Your task to perform on an android device: Open Chrome and go to settings Image 0: 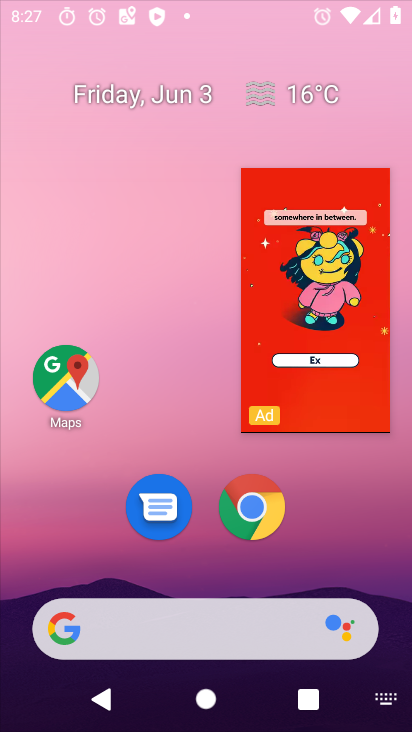
Step 0: press home button
Your task to perform on an android device: Open Chrome and go to settings Image 1: 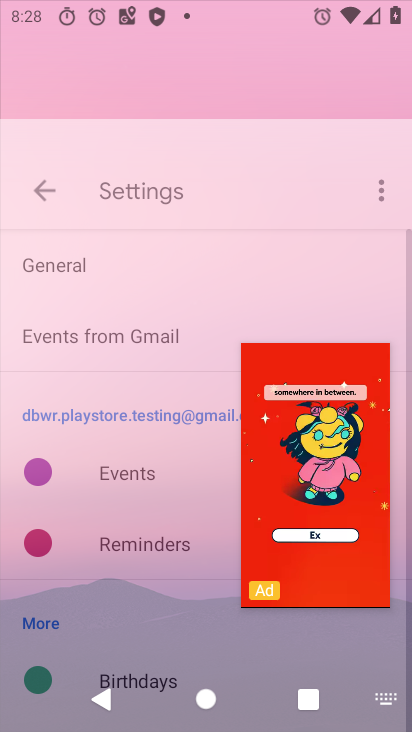
Step 1: click (71, 386)
Your task to perform on an android device: Open Chrome and go to settings Image 2: 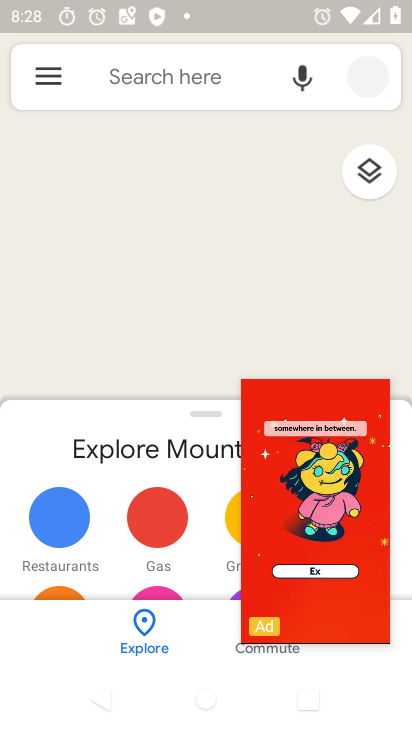
Step 2: press home button
Your task to perform on an android device: Open Chrome and go to settings Image 3: 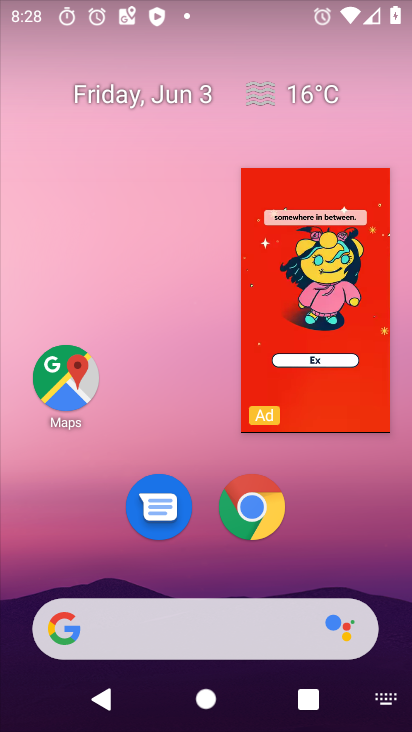
Step 3: click (335, 239)
Your task to perform on an android device: Open Chrome and go to settings Image 4: 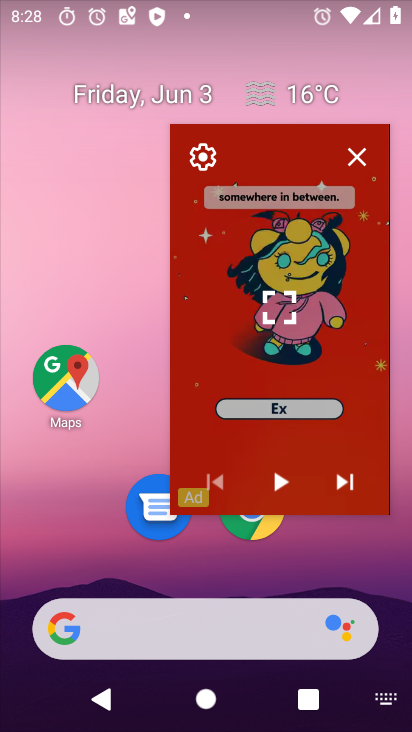
Step 4: click (359, 153)
Your task to perform on an android device: Open Chrome and go to settings Image 5: 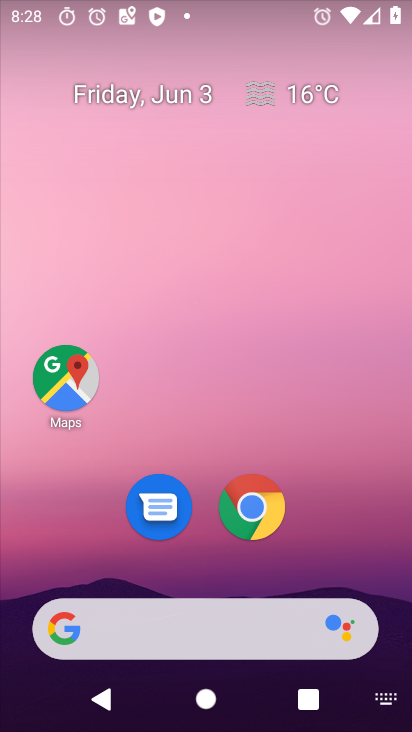
Step 5: click (271, 510)
Your task to perform on an android device: Open Chrome and go to settings Image 6: 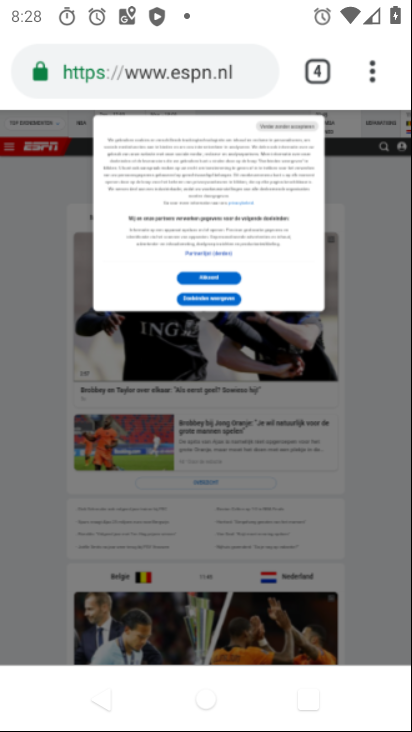
Step 6: click (371, 73)
Your task to perform on an android device: Open Chrome and go to settings Image 7: 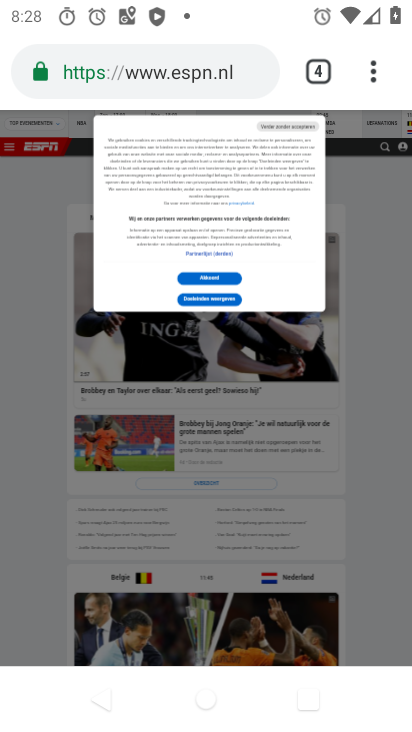
Step 7: click (368, 65)
Your task to perform on an android device: Open Chrome and go to settings Image 8: 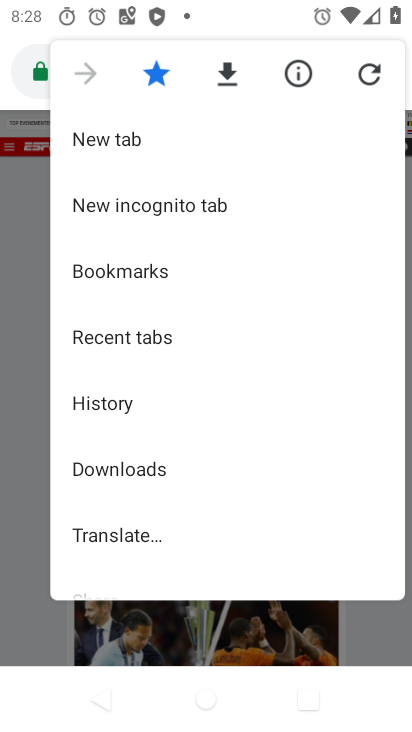
Step 8: drag from (232, 441) to (231, 66)
Your task to perform on an android device: Open Chrome and go to settings Image 9: 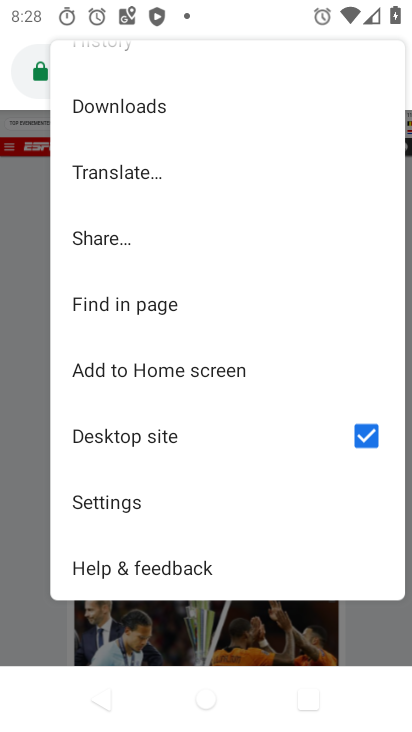
Step 9: click (183, 496)
Your task to perform on an android device: Open Chrome and go to settings Image 10: 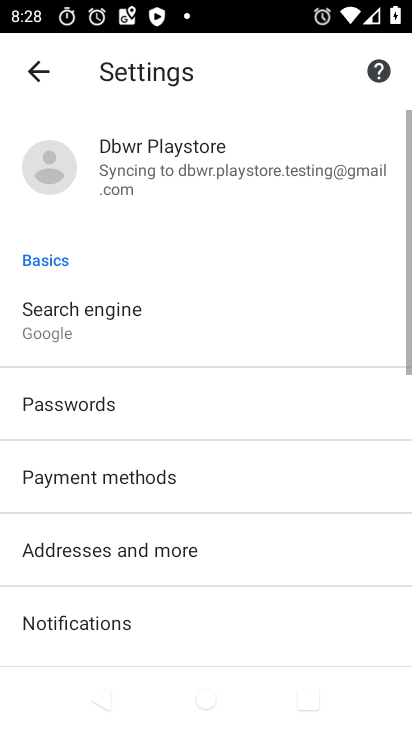
Step 10: task complete